Your task to perform on an android device: stop showing notifications on the lock screen Image 0: 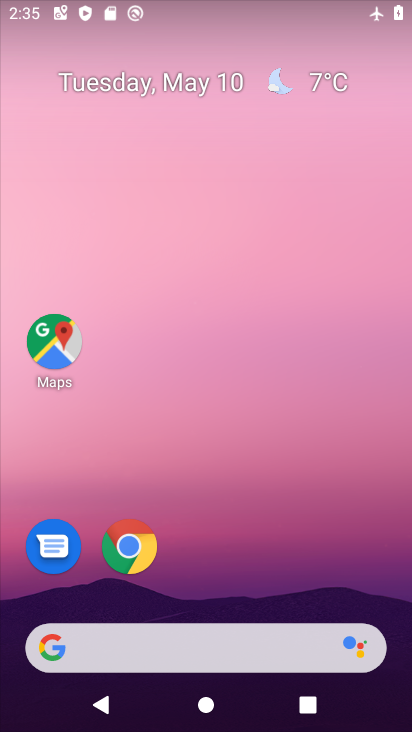
Step 0: drag from (279, 563) to (223, 180)
Your task to perform on an android device: stop showing notifications on the lock screen Image 1: 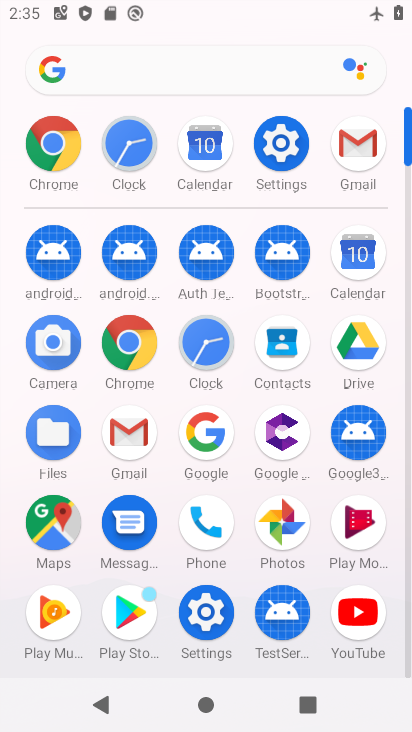
Step 1: click (293, 145)
Your task to perform on an android device: stop showing notifications on the lock screen Image 2: 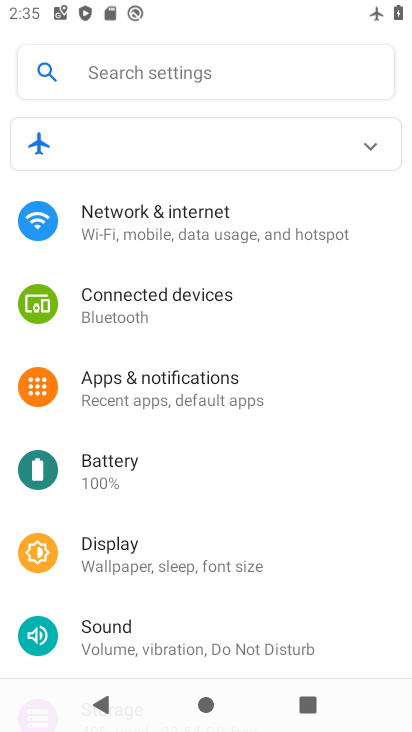
Step 2: click (197, 379)
Your task to perform on an android device: stop showing notifications on the lock screen Image 3: 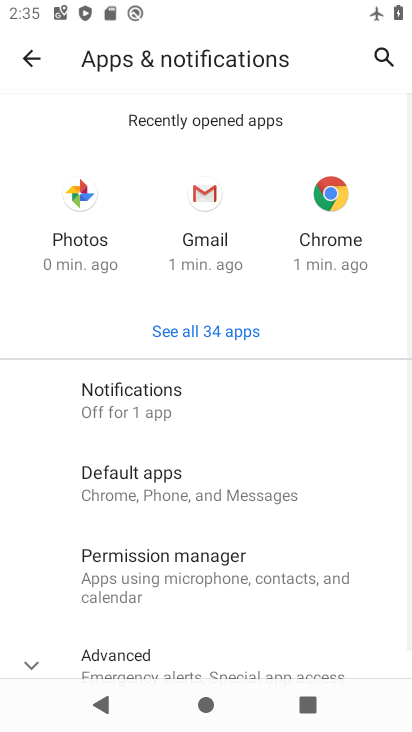
Step 3: click (172, 411)
Your task to perform on an android device: stop showing notifications on the lock screen Image 4: 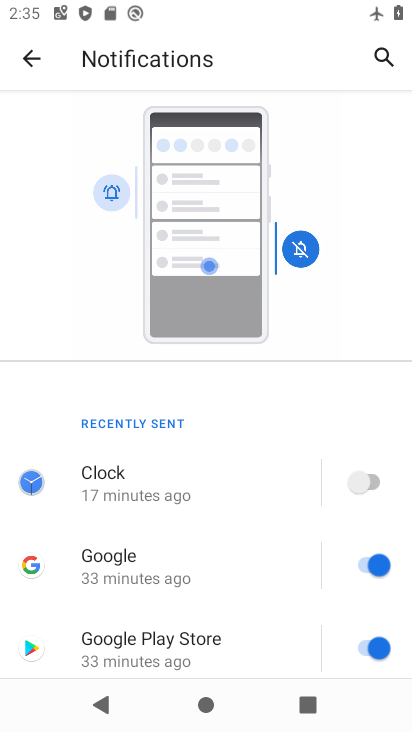
Step 4: drag from (164, 567) to (119, 210)
Your task to perform on an android device: stop showing notifications on the lock screen Image 5: 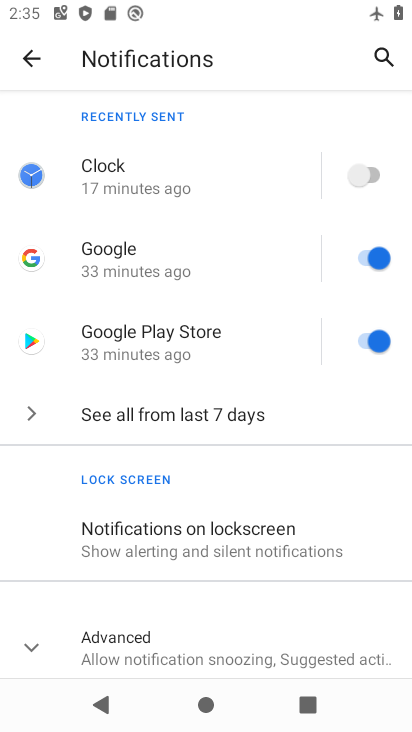
Step 5: click (165, 547)
Your task to perform on an android device: stop showing notifications on the lock screen Image 6: 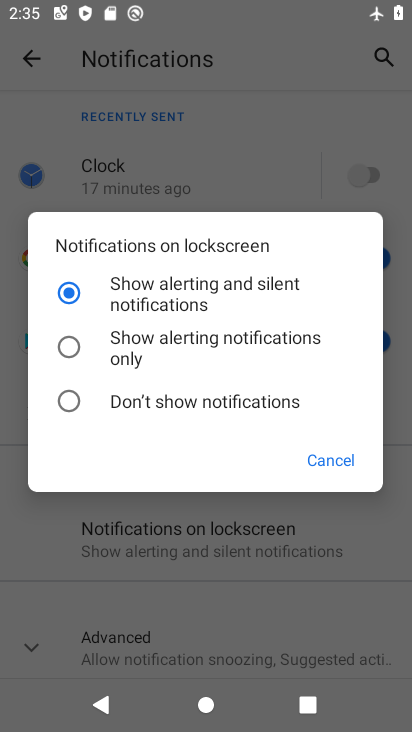
Step 6: click (70, 411)
Your task to perform on an android device: stop showing notifications on the lock screen Image 7: 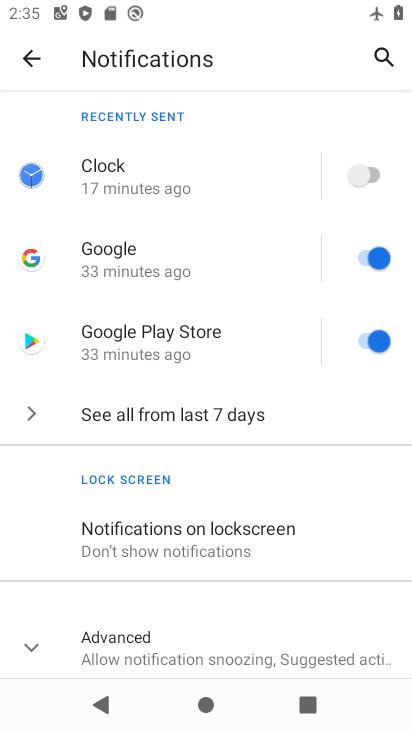
Step 7: task complete